Your task to perform on an android device: Go to Yahoo.com Image 0: 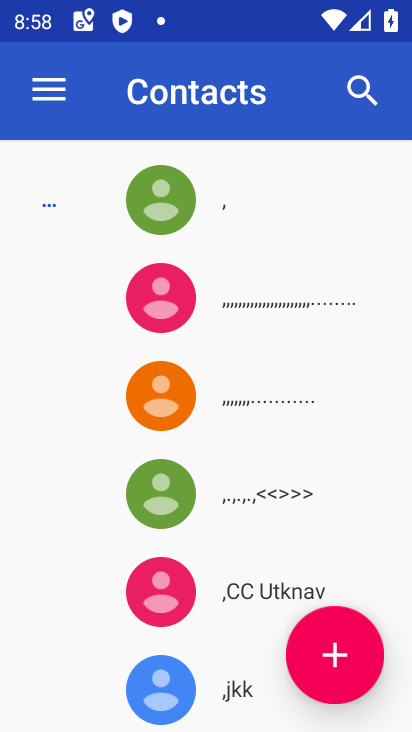
Step 0: press home button
Your task to perform on an android device: Go to Yahoo.com Image 1: 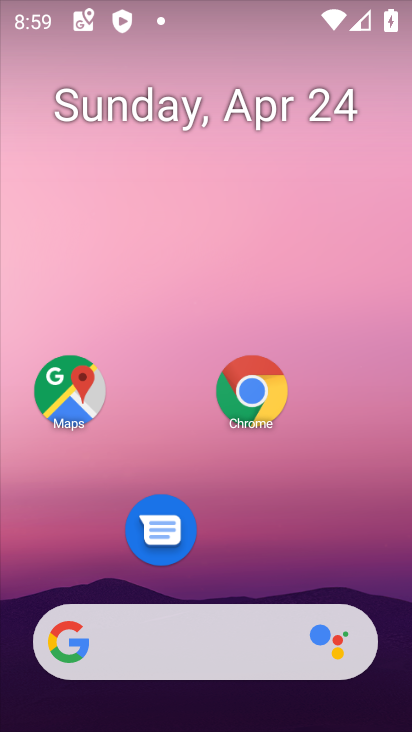
Step 1: click (249, 392)
Your task to perform on an android device: Go to Yahoo.com Image 2: 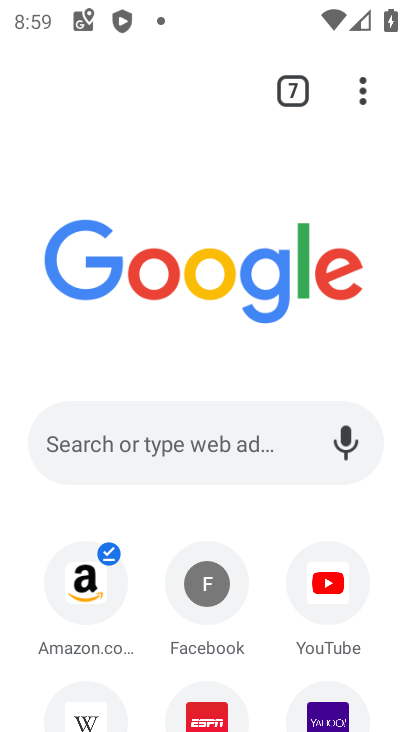
Step 2: click (331, 722)
Your task to perform on an android device: Go to Yahoo.com Image 3: 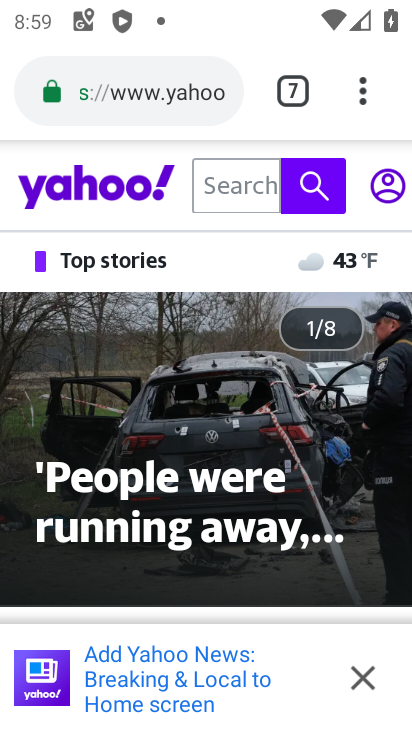
Step 3: task complete